Your task to perform on an android device: toggle pop-ups in chrome Image 0: 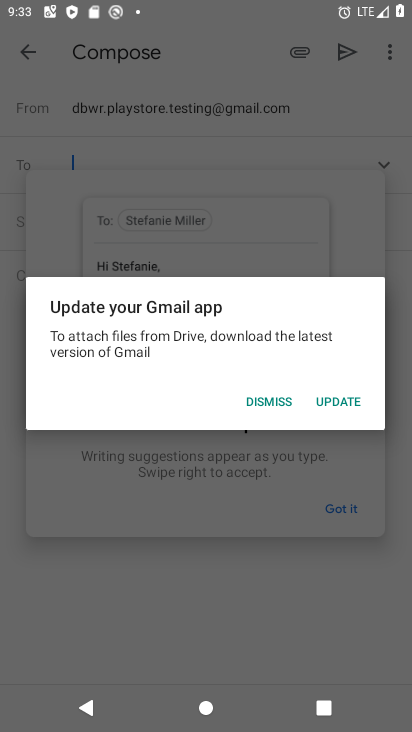
Step 0: press home button
Your task to perform on an android device: toggle pop-ups in chrome Image 1: 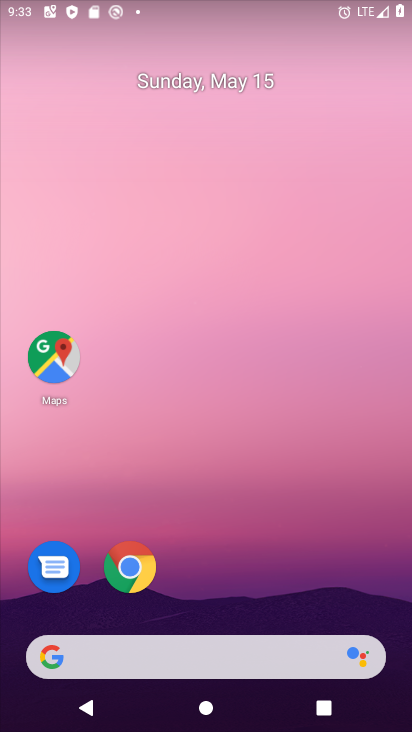
Step 1: click (130, 557)
Your task to perform on an android device: toggle pop-ups in chrome Image 2: 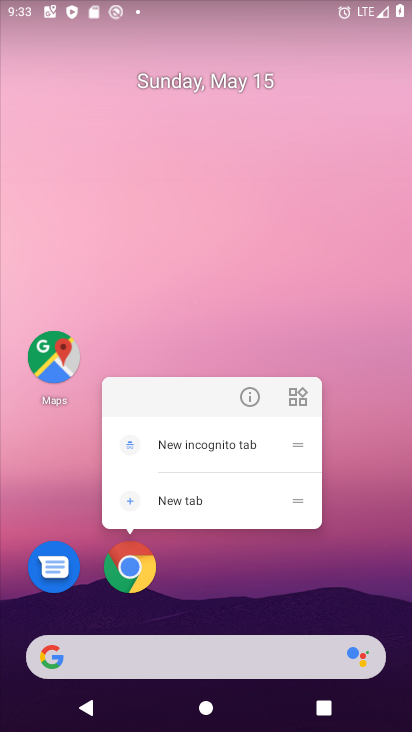
Step 2: click (177, 601)
Your task to perform on an android device: toggle pop-ups in chrome Image 3: 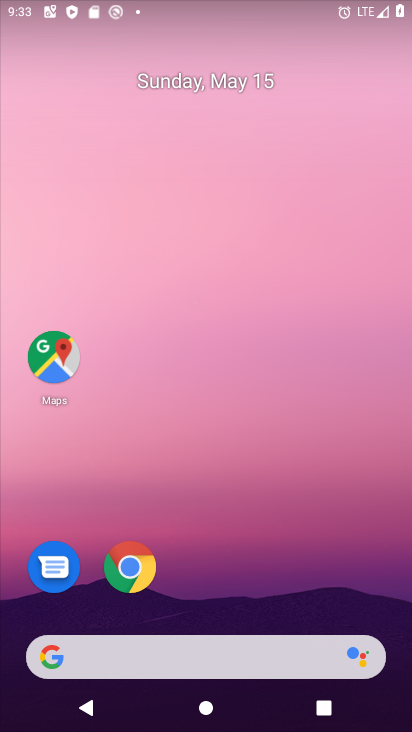
Step 3: click (139, 585)
Your task to perform on an android device: toggle pop-ups in chrome Image 4: 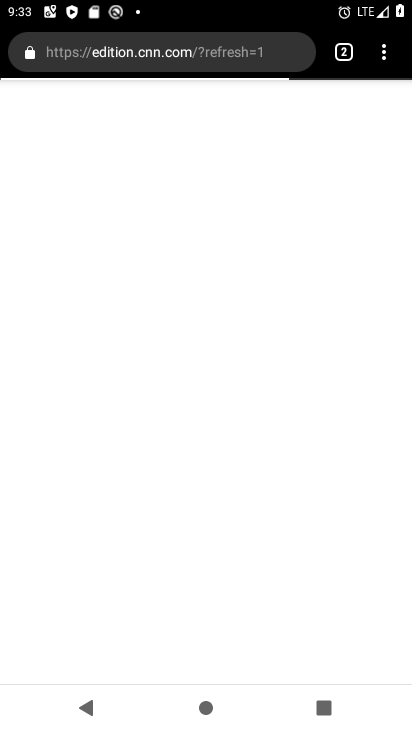
Step 4: click (388, 53)
Your task to perform on an android device: toggle pop-ups in chrome Image 5: 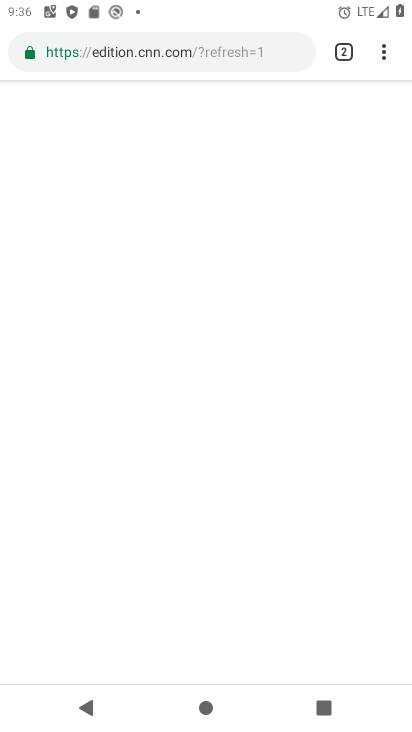
Step 5: click (386, 47)
Your task to perform on an android device: toggle pop-ups in chrome Image 6: 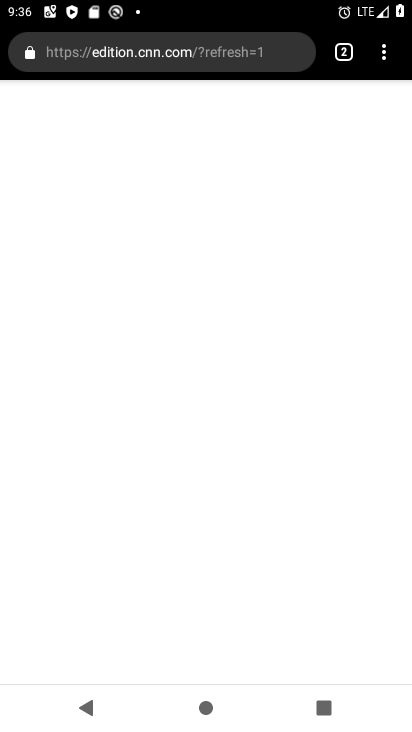
Step 6: click (370, 48)
Your task to perform on an android device: toggle pop-ups in chrome Image 7: 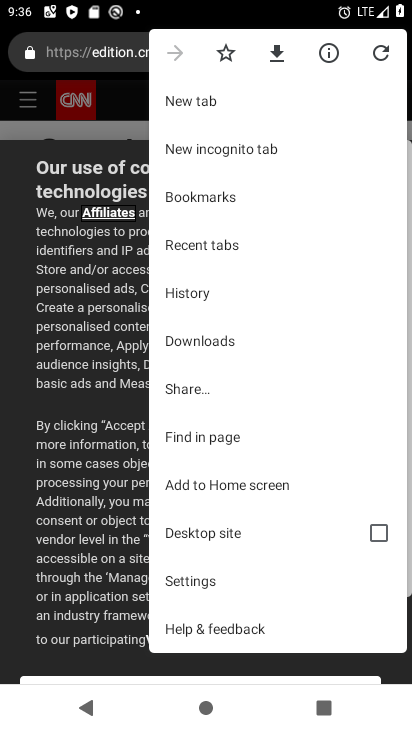
Step 7: click (219, 584)
Your task to perform on an android device: toggle pop-ups in chrome Image 8: 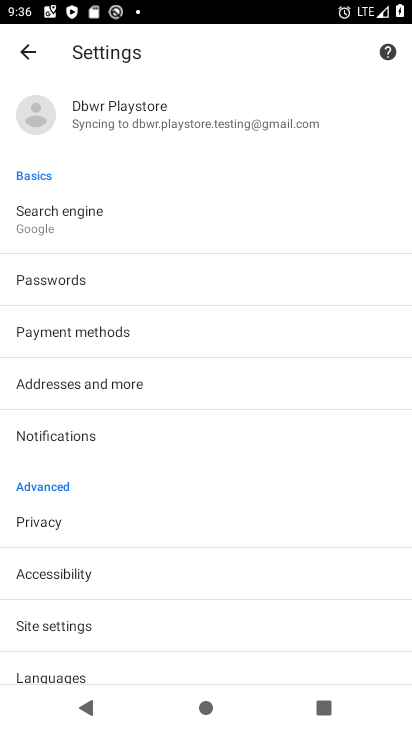
Step 8: click (125, 608)
Your task to perform on an android device: toggle pop-ups in chrome Image 9: 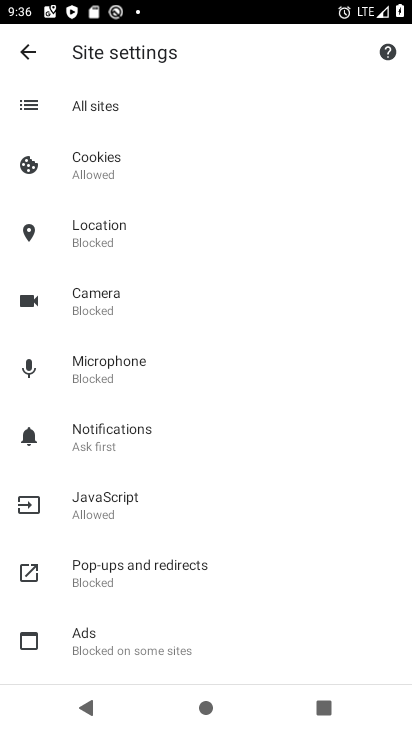
Step 9: click (190, 571)
Your task to perform on an android device: toggle pop-ups in chrome Image 10: 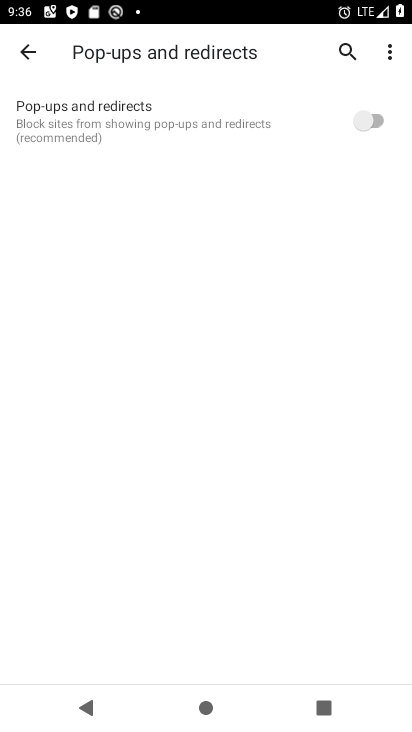
Step 10: click (383, 116)
Your task to perform on an android device: toggle pop-ups in chrome Image 11: 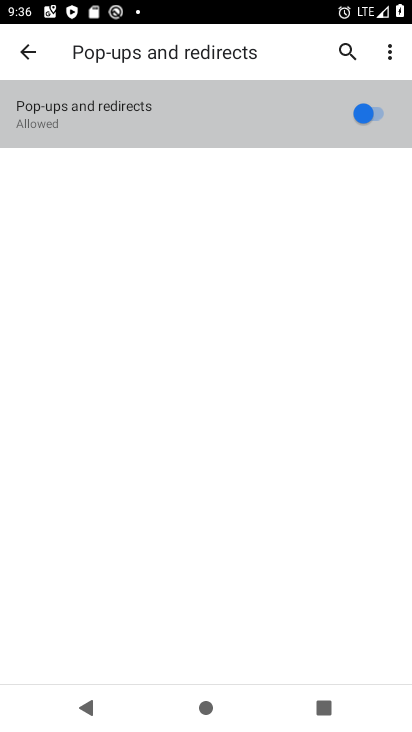
Step 11: task complete